Your task to perform on an android device: clear history in the chrome app Image 0: 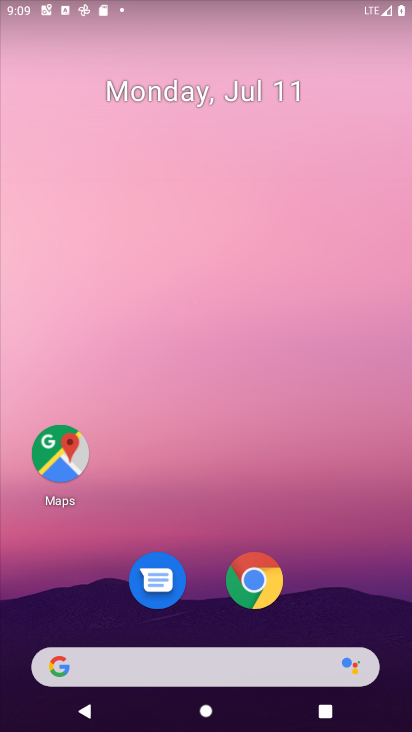
Step 0: click (269, 570)
Your task to perform on an android device: clear history in the chrome app Image 1: 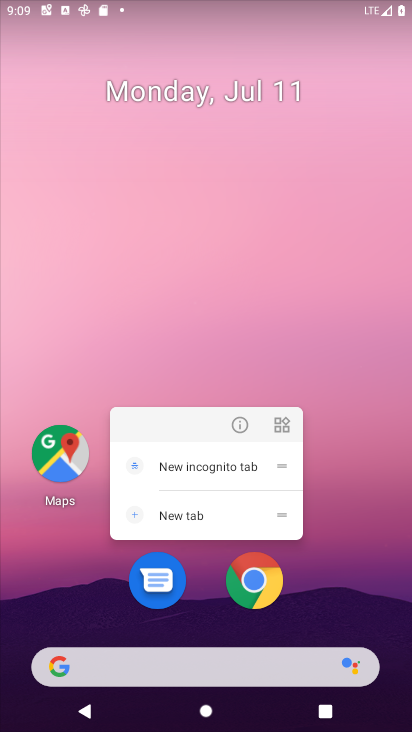
Step 1: click (267, 570)
Your task to perform on an android device: clear history in the chrome app Image 2: 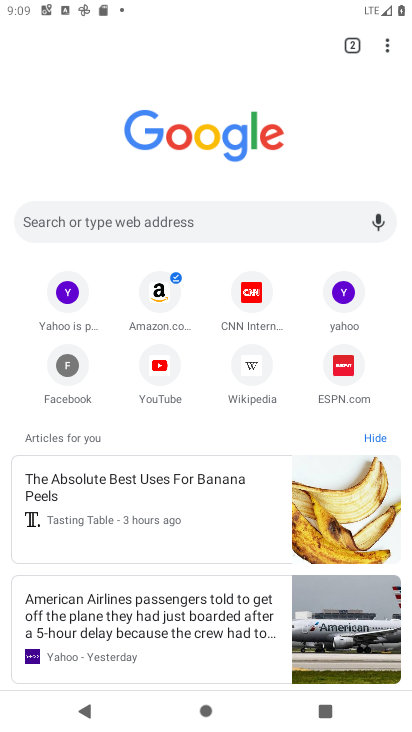
Step 2: click (385, 47)
Your task to perform on an android device: clear history in the chrome app Image 3: 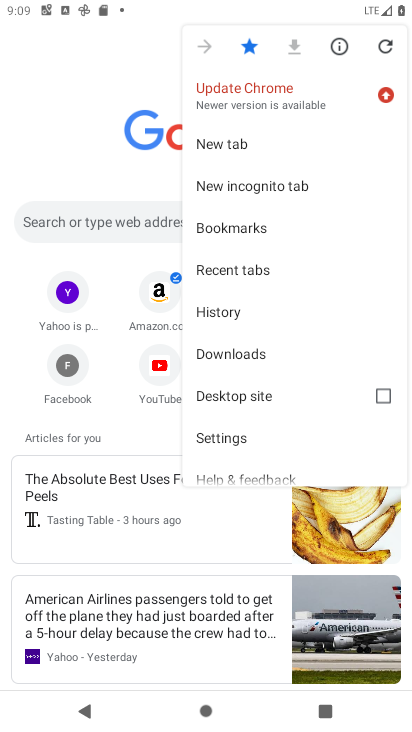
Step 3: click (229, 310)
Your task to perform on an android device: clear history in the chrome app Image 4: 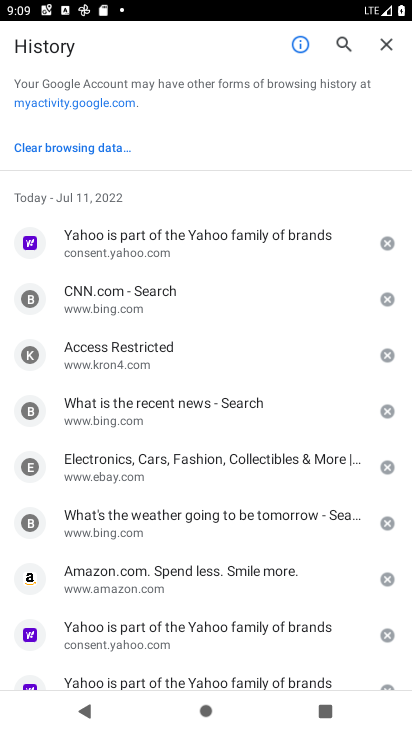
Step 4: click (87, 143)
Your task to perform on an android device: clear history in the chrome app Image 5: 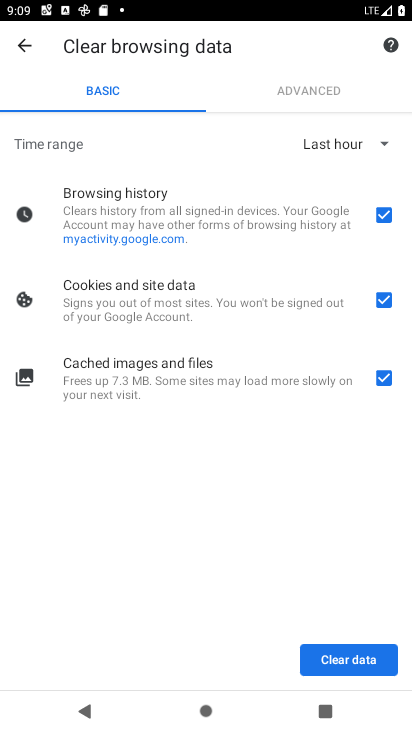
Step 5: click (359, 653)
Your task to perform on an android device: clear history in the chrome app Image 6: 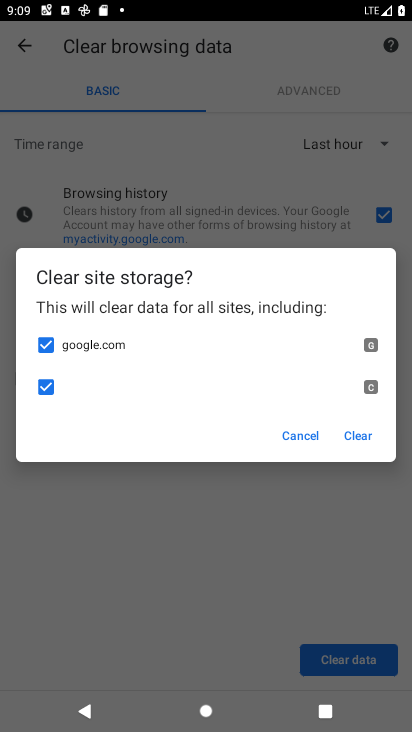
Step 6: click (359, 432)
Your task to perform on an android device: clear history in the chrome app Image 7: 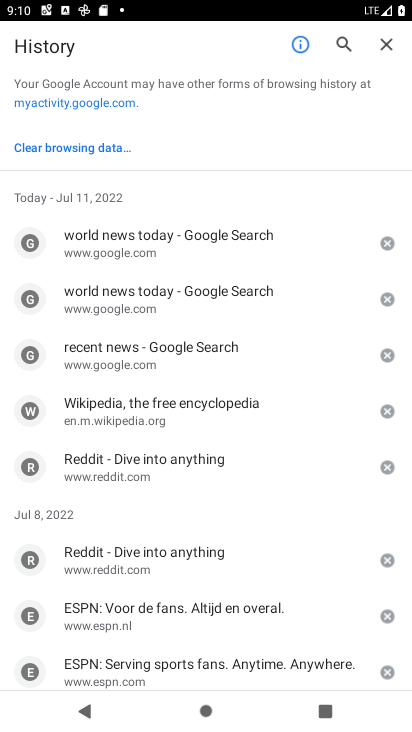
Step 7: task complete